Your task to perform on an android device: Open network settings Image 0: 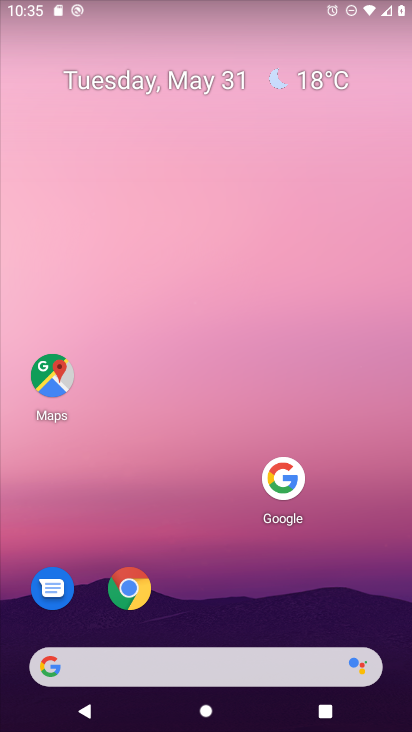
Step 0: press home button
Your task to perform on an android device: Open network settings Image 1: 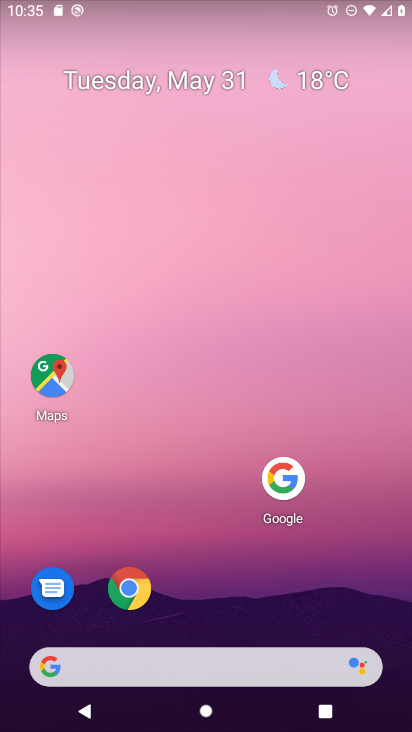
Step 1: drag from (173, 667) to (286, 103)
Your task to perform on an android device: Open network settings Image 2: 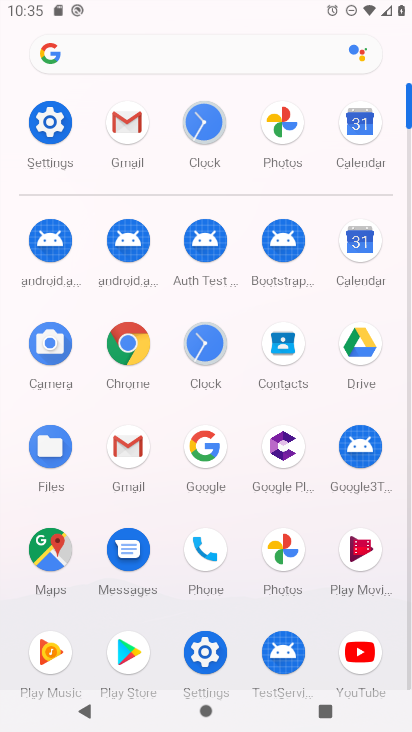
Step 2: click (57, 110)
Your task to perform on an android device: Open network settings Image 3: 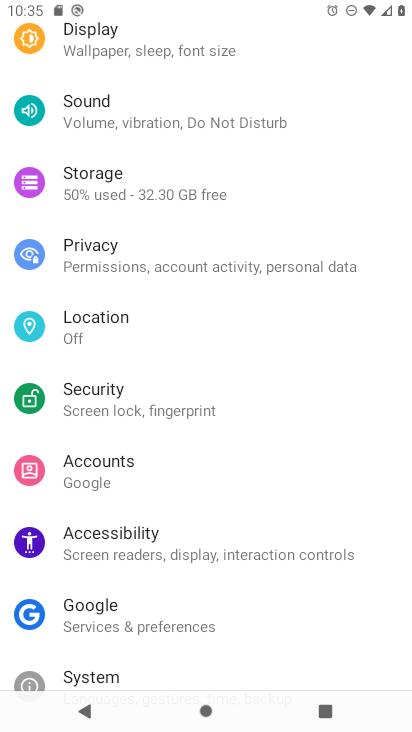
Step 3: drag from (338, 74) to (335, 567)
Your task to perform on an android device: Open network settings Image 4: 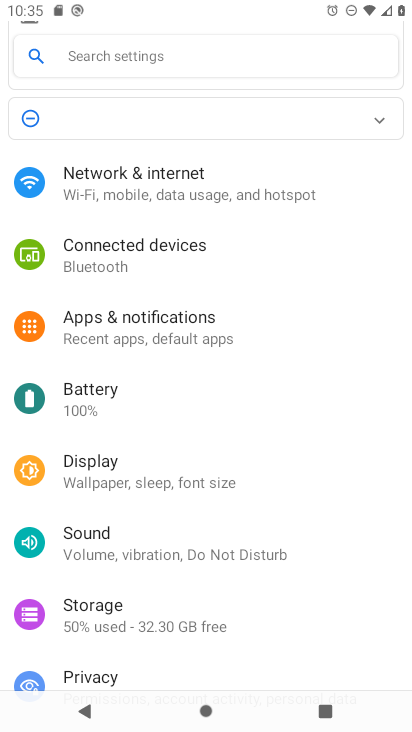
Step 4: click (155, 179)
Your task to perform on an android device: Open network settings Image 5: 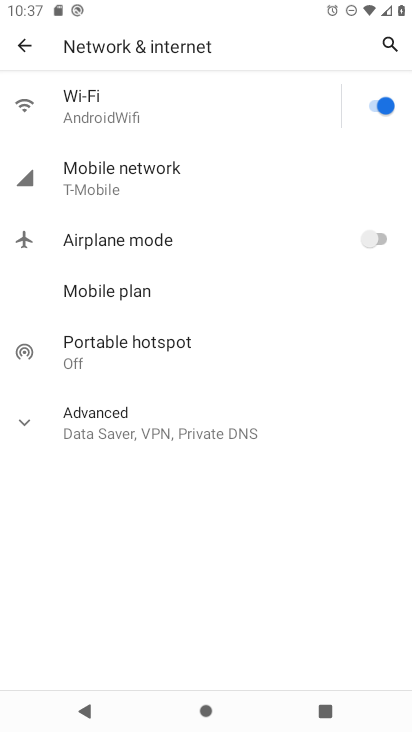
Step 5: task complete